Your task to perform on an android device: Is it going to rain tomorrow? Image 0: 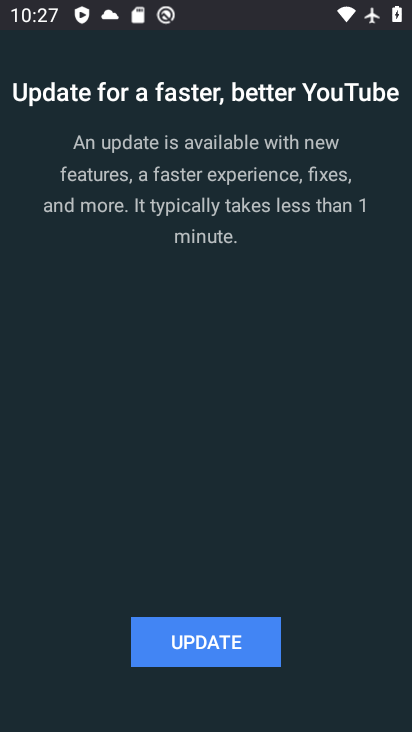
Step 0: press home button
Your task to perform on an android device: Is it going to rain tomorrow? Image 1: 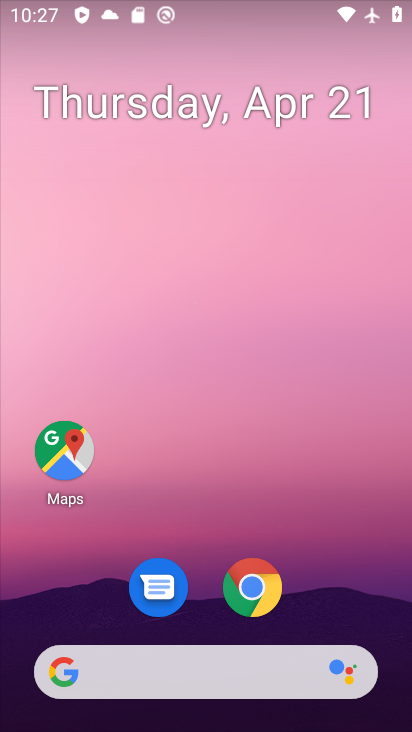
Step 1: click (241, 671)
Your task to perform on an android device: Is it going to rain tomorrow? Image 2: 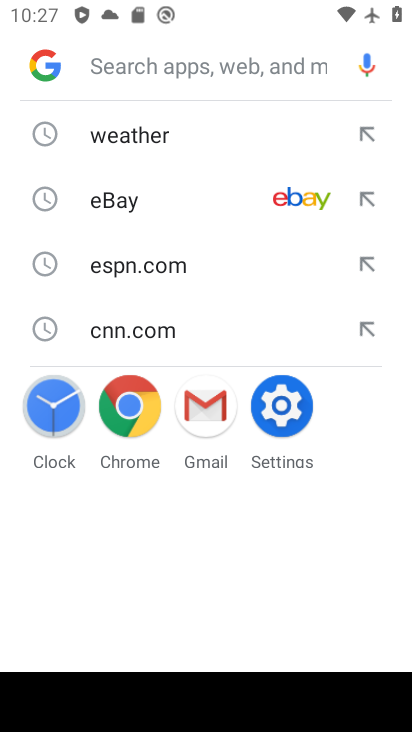
Step 2: click (152, 138)
Your task to perform on an android device: Is it going to rain tomorrow? Image 3: 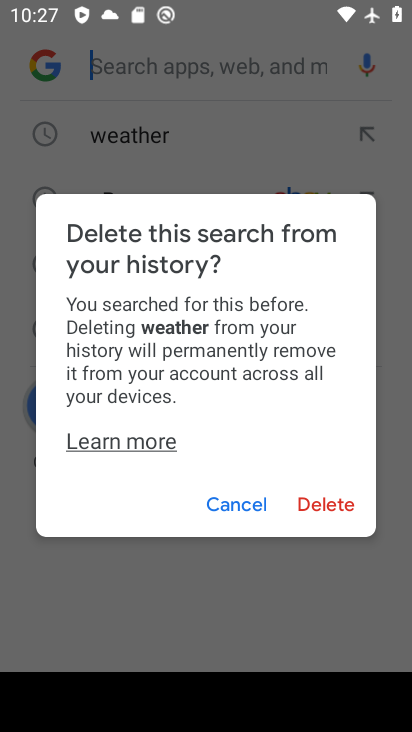
Step 3: click (230, 514)
Your task to perform on an android device: Is it going to rain tomorrow? Image 4: 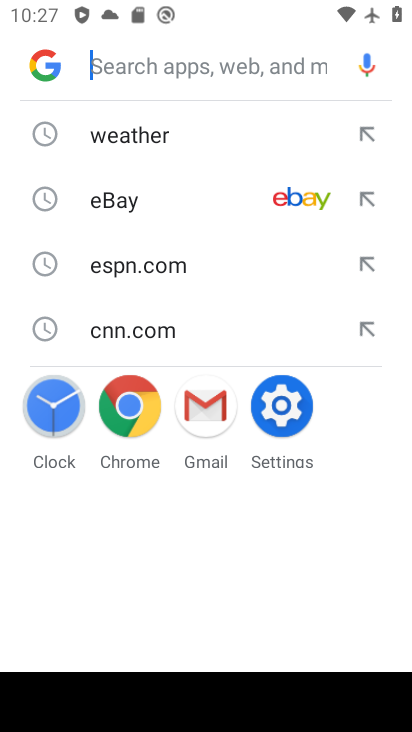
Step 4: click (154, 135)
Your task to perform on an android device: Is it going to rain tomorrow? Image 5: 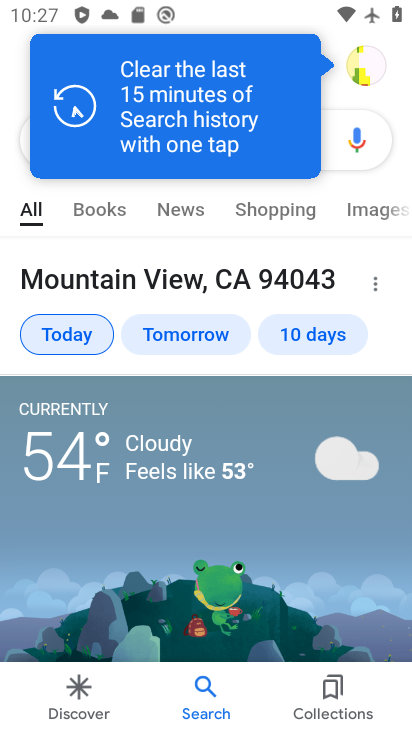
Step 5: click (182, 334)
Your task to perform on an android device: Is it going to rain tomorrow? Image 6: 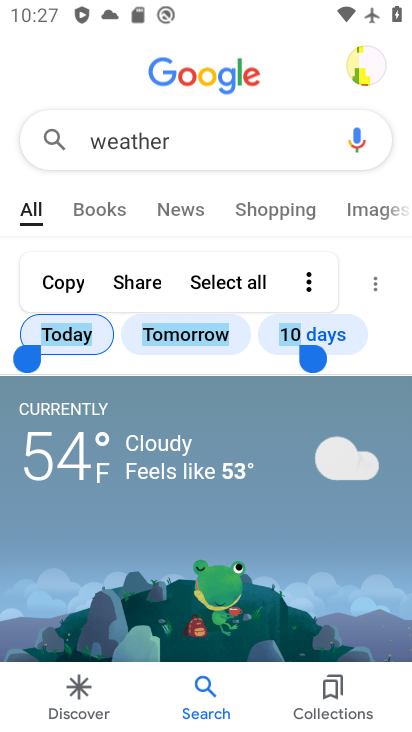
Step 6: click (230, 335)
Your task to perform on an android device: Is it going to rain tomorrow? Image 7: 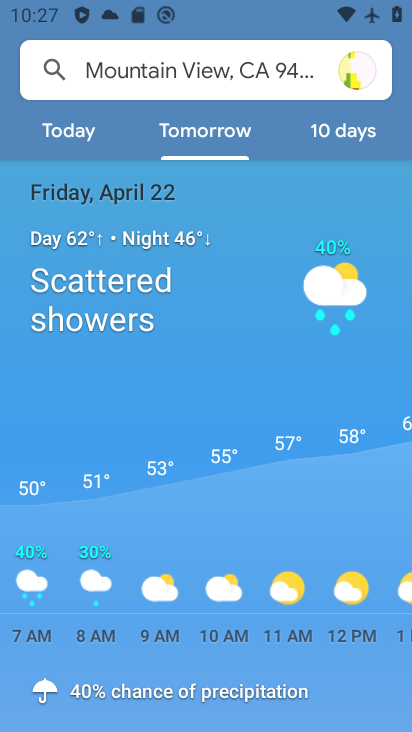
Step 7: task complete